Your task to perform on an android device: turn off wifi Image 0: 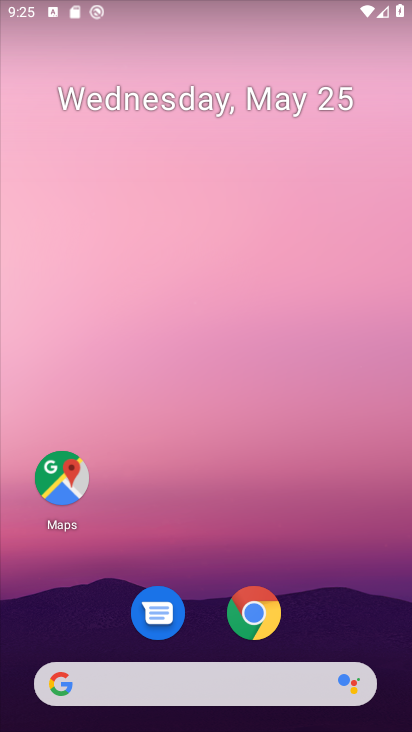
Step 0: drag from (282, 679) to (295, 101)
Your task to perform on an android device: turn off wifi Image 1: 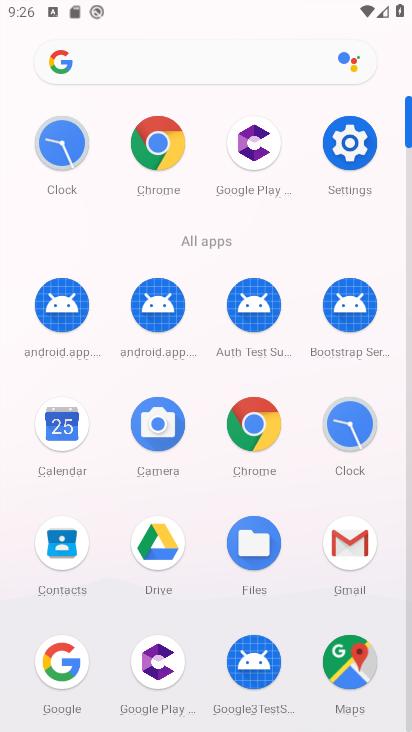
Step 1: click (341, 139)
Your task to perform on an android device: turn off wifi Image 2: 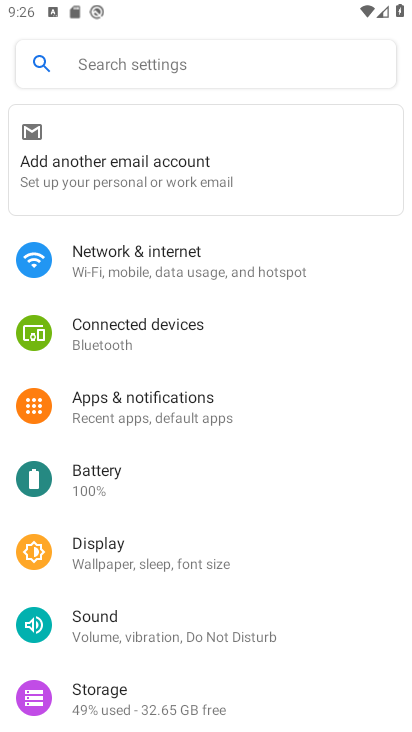
Step 2: click (175, 209)
Your task to perform on an android device: turn off wifi Image 3: 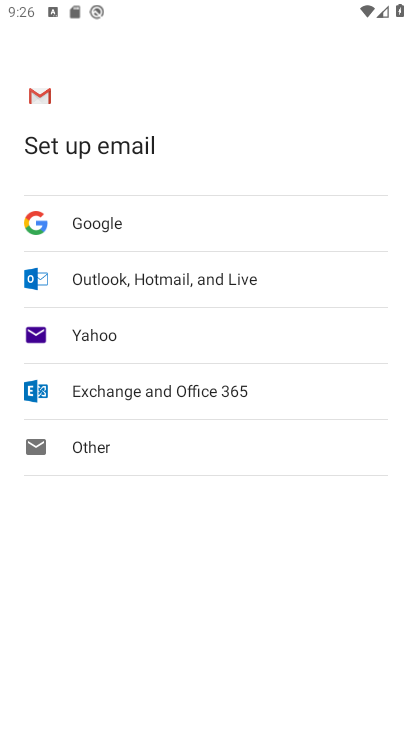
Step 3: task complete